Your task to perform on an android device: turn off priority inbox in the gmail app Image 0: 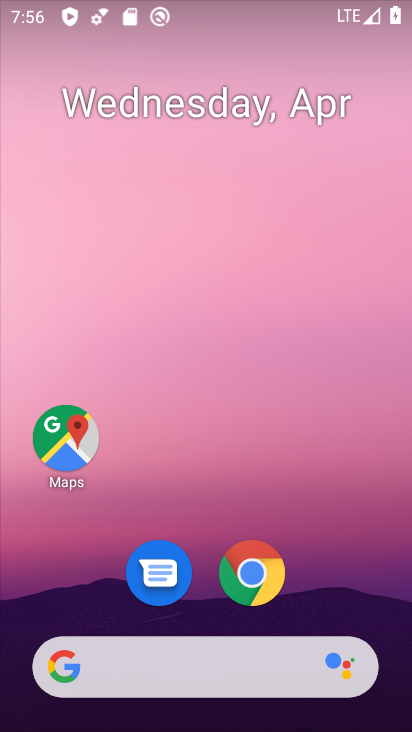
Step 0: drag from (147, 440) to (314, 159)
Your task to perform on an android device: turn off priority inbox in the gmail app Image 1: 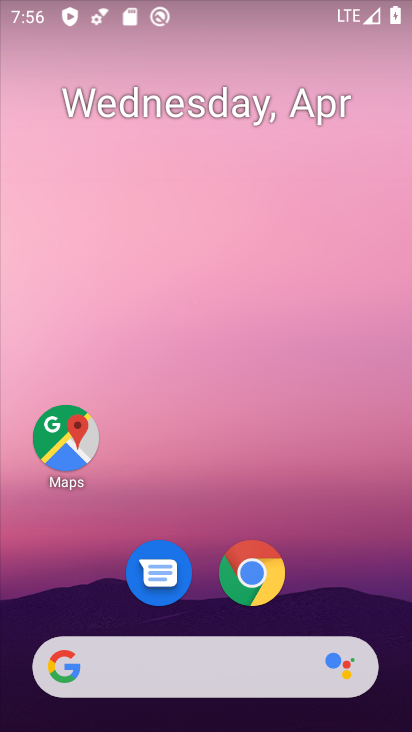
Step 1: drag from (125, 482) to (233, 304)
Your task to perform on an android device: turn off priority inbox in the gmail app Image 2: 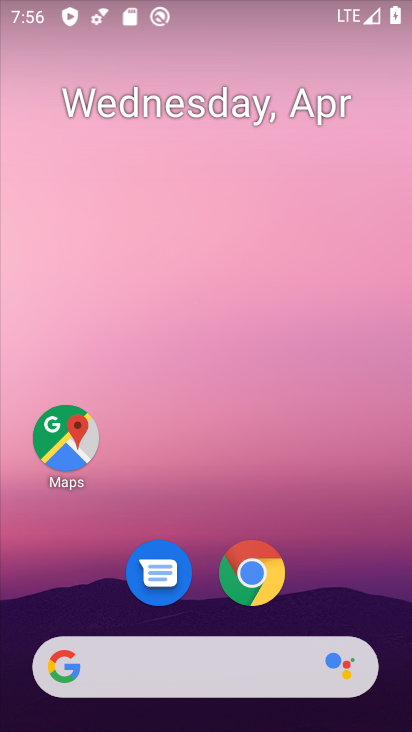
Step 2: drag from (119, 533) to (295, 250)
Your task to perform on an android device: turn off priority inbox in the gmail app Image 3: 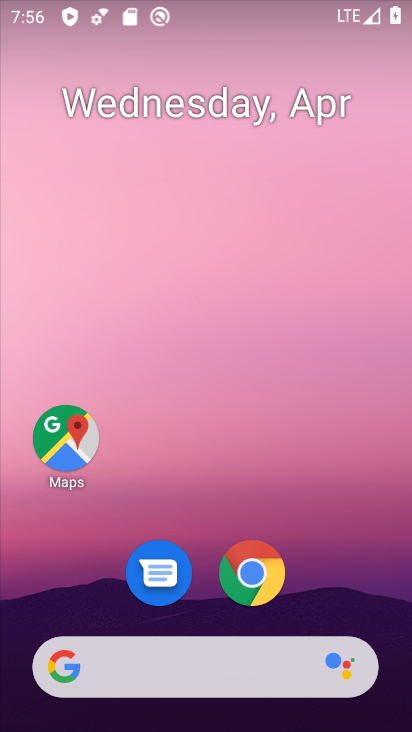
Step 3: drag from (148, 379) to (235, 219)
Your task to perform on an android device: turn off priority inbox in the gmail app Image 4: 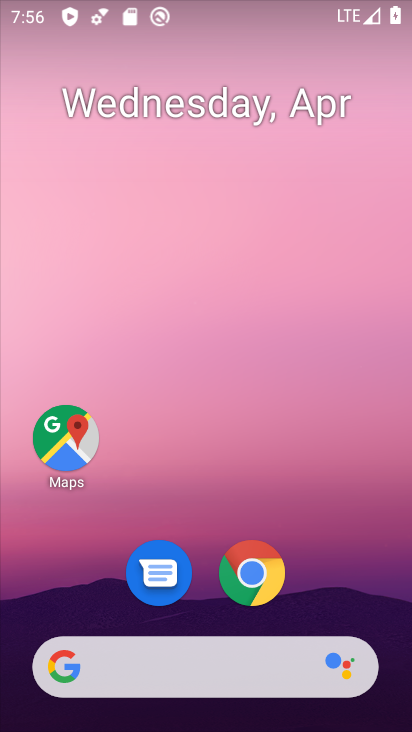
Step 4: drag from (58, 443) to (207, 189)
Your task to perform on an android device: turn off priority inbox in the gmail app Image 5: 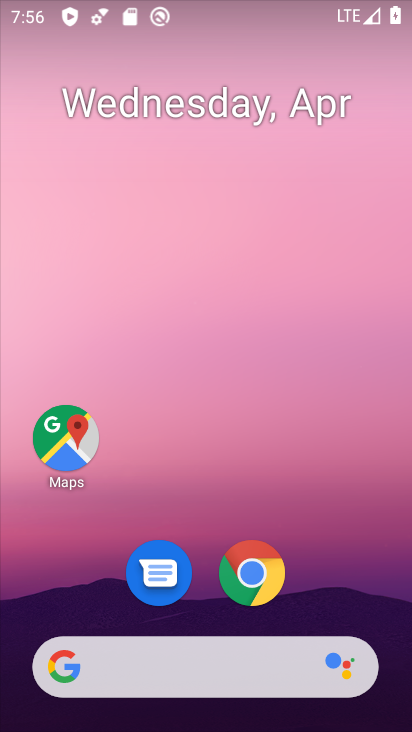
Step 5: drag from (115, 382) to (241, 178)
Your task to perform on an android device: turn off priority inbox in the gmail app Image 6: 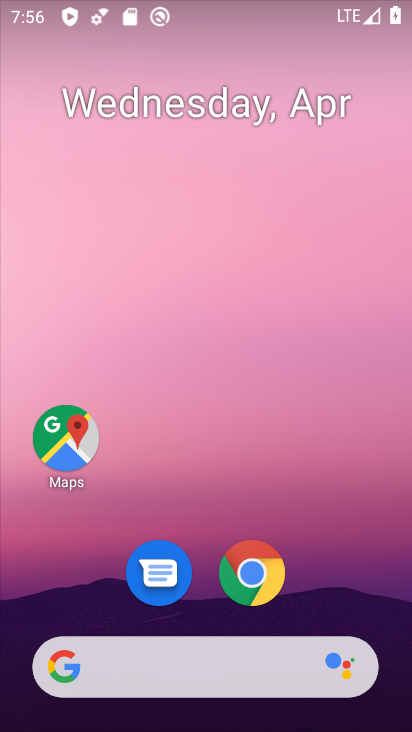
Step 6: drag from (149, 380) to (292, 197)
Your task to perform on an android device: turn off priority inbox in the gmail app Image 7: 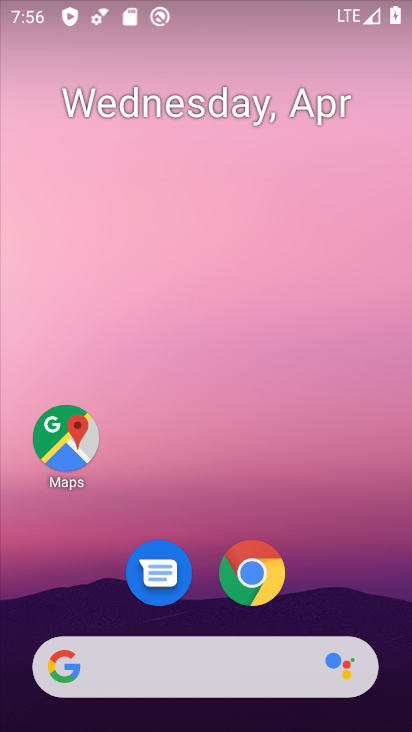
Step 7: drag from (98, 468) to (269, 235)
Your task to perform on an android device: turn off priority inbox in the gmail app Image 8: 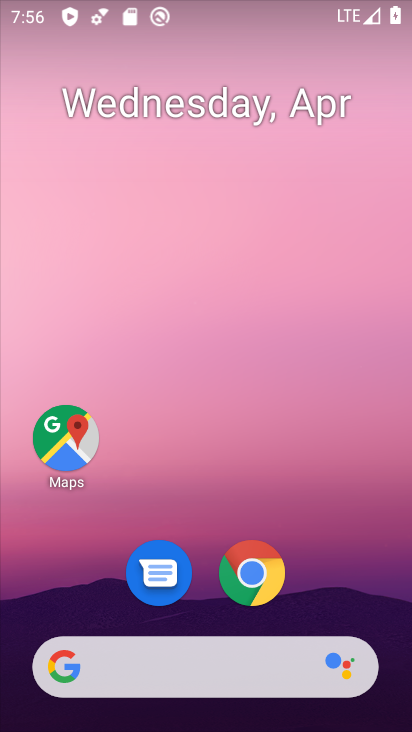
Step 8: drag from (89, 558) to (310, 205)
Your task to perform on an android device: turn off priority inbox in the gmail app Image 9: 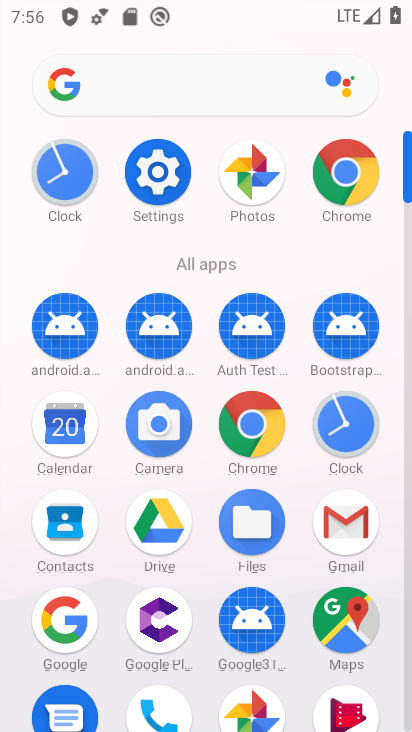
Step 9: click (332, 535)
Your task to perform on an android device: turn off priority inbox in the gmail app Image 10: 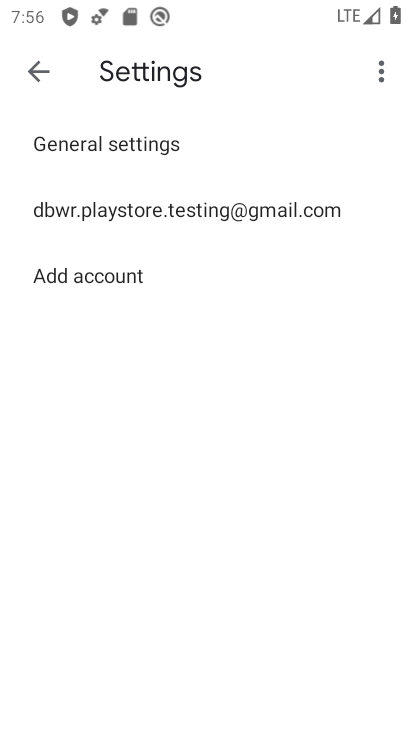
Step 10: click (163, 212)
Your task to perform on an android device: turn off priority inbox in the gmail app Image 11: 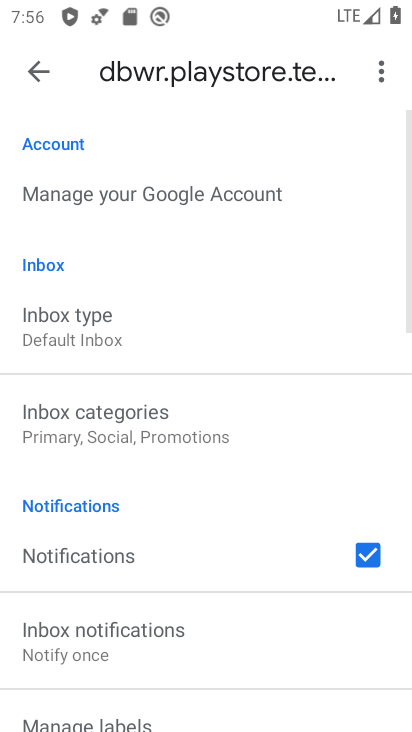
Step 11: drag from (91, 651) to (218, 283)
Your task to perform on an android device: turn off priority inbox in the gmail app Image 12: 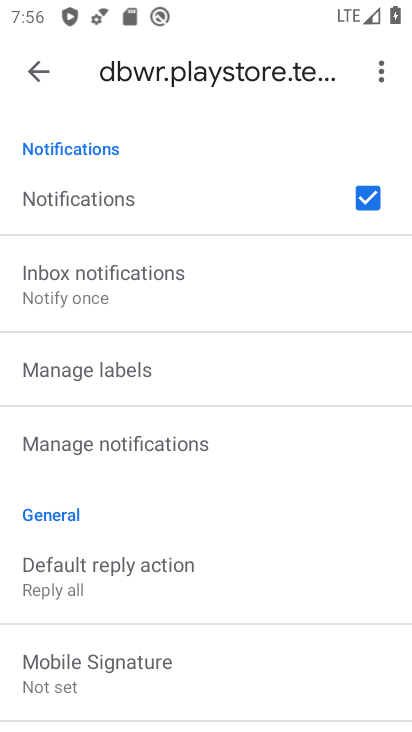
Step 12: drag from (242, 218) to (175, 566)
Your task to perform on an android device: turn off priority inbox in the gmail app Image 13: 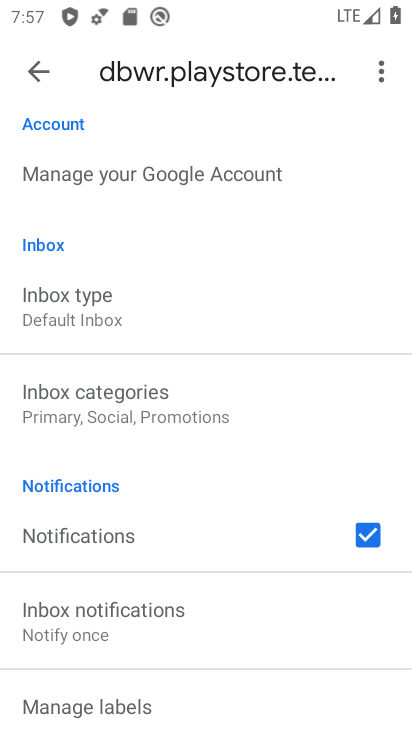
Step 13: click (187, 317)
Your task to perform on an android device: turn off priority inbox in the gmail app Image 14: 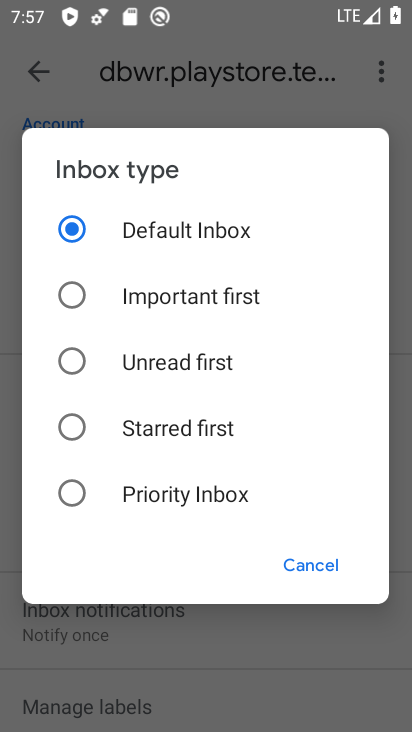
Step 14: task complete